Your task to perform on an android device: change notification settings in the gmail app Image 0: 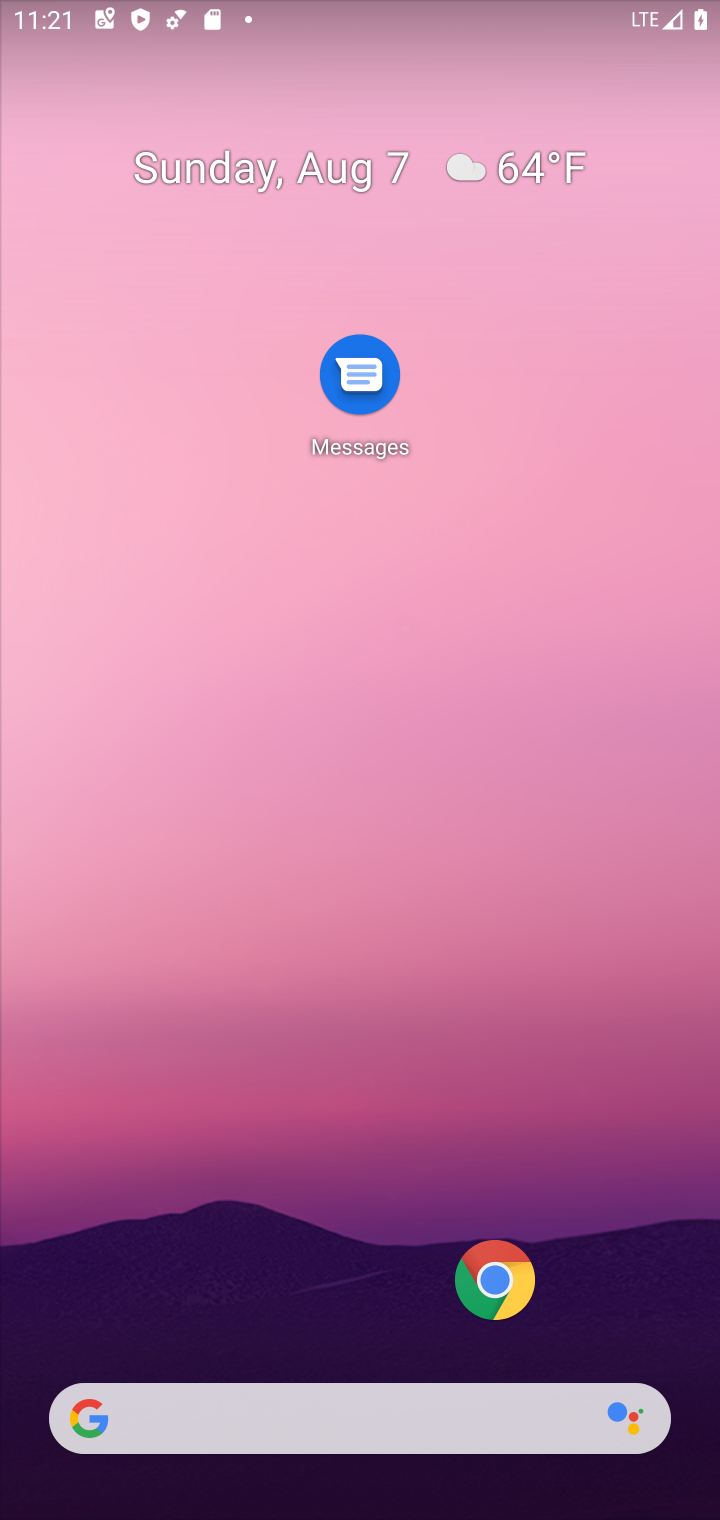
Step 0: drag from (320, 1325) to (505, 318)
Your task to perform on an android device: change notification settings in the gmail app Image 1: 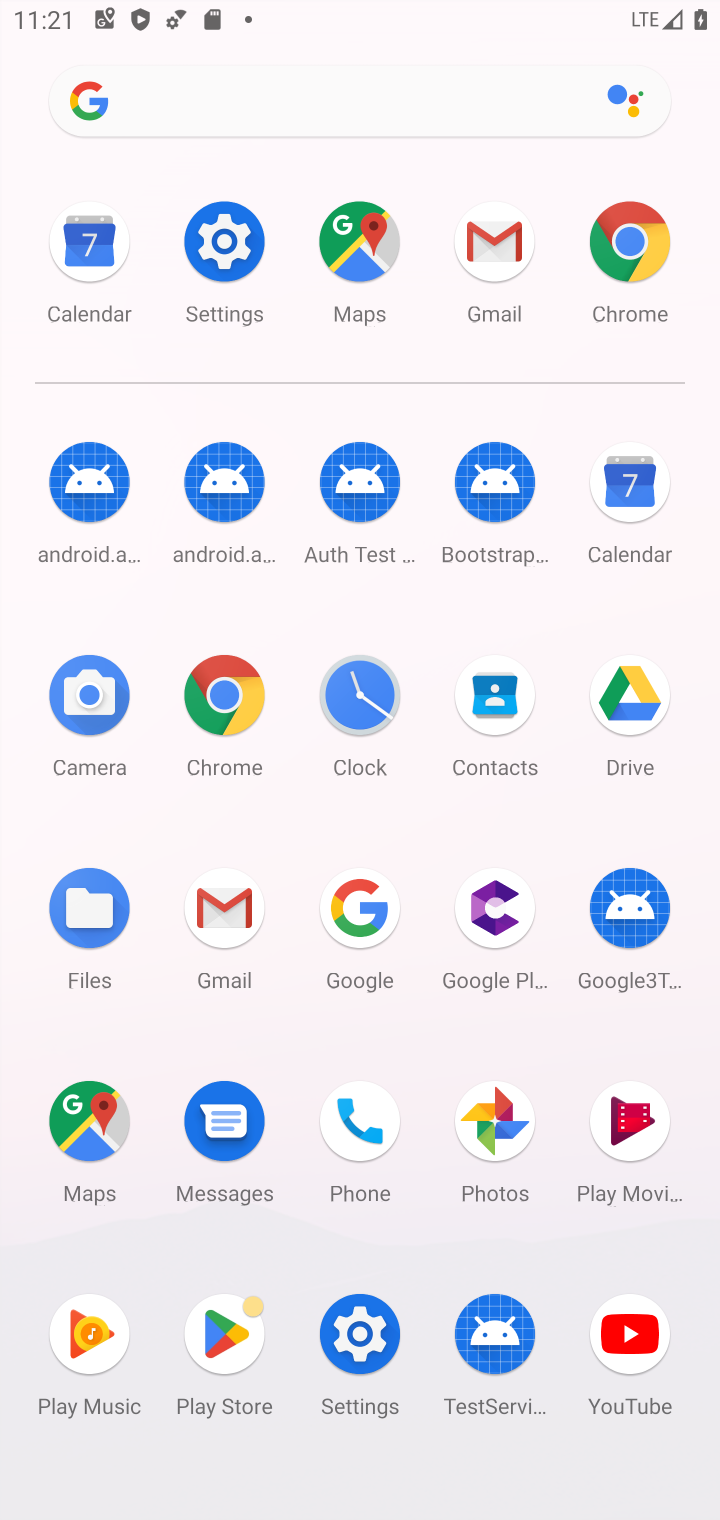
Step 1: click (506, 249)
Your task to perform on an android device: change notification settings in the gmail app Image 2: 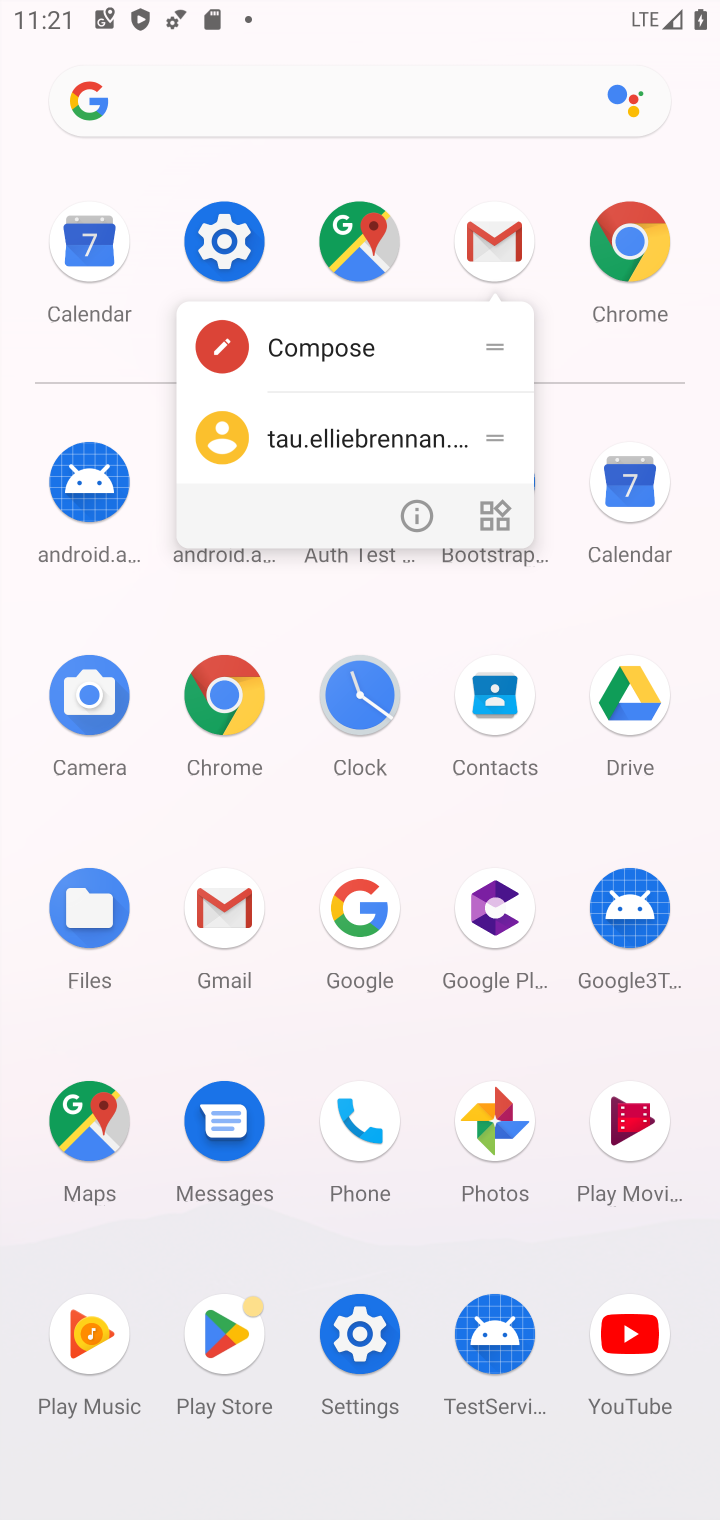
Step 2: click (420, 502)
Your task to perform on an android device: change notification settings in the gmail app Image 3: 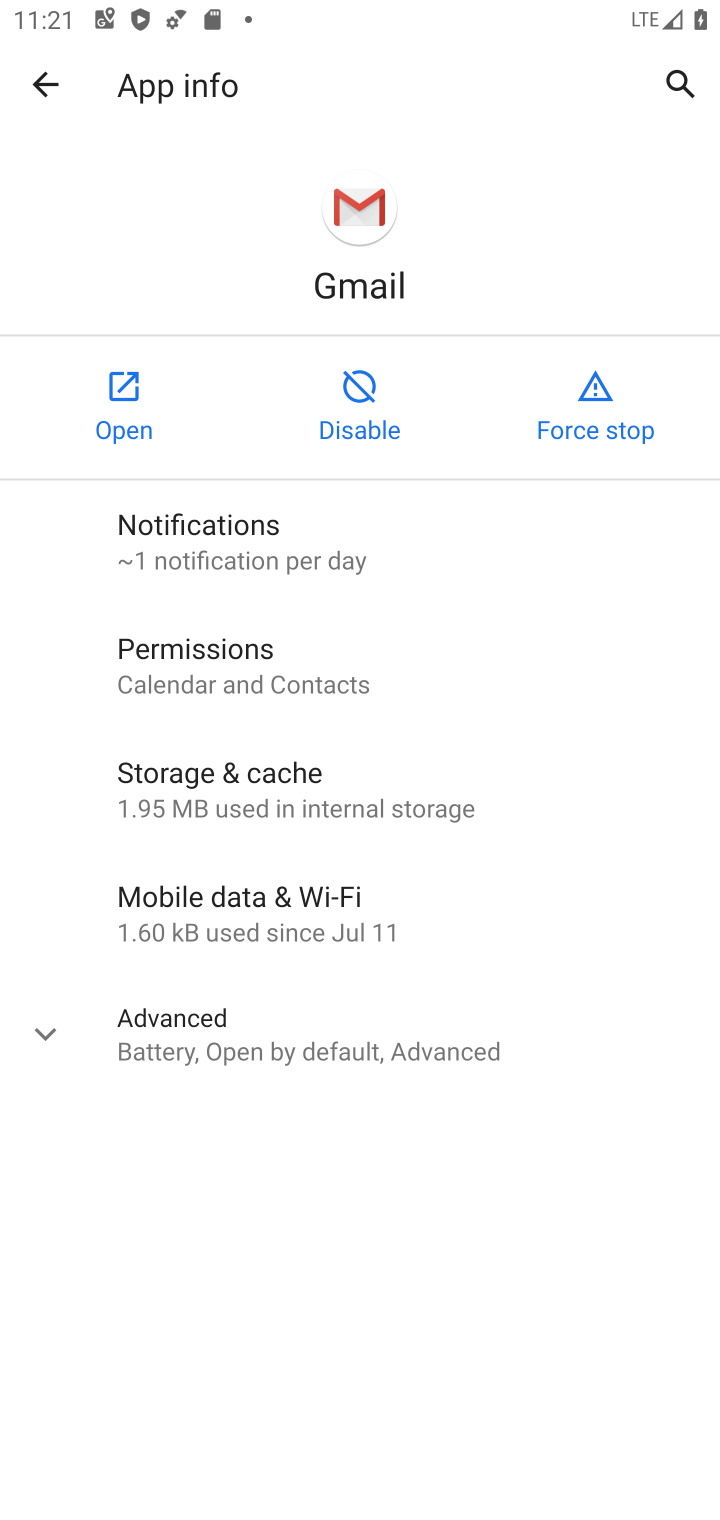
Step 3: click (309, 541)
Your task to perform on an android device: change notification settings in the gmail app Image 4: 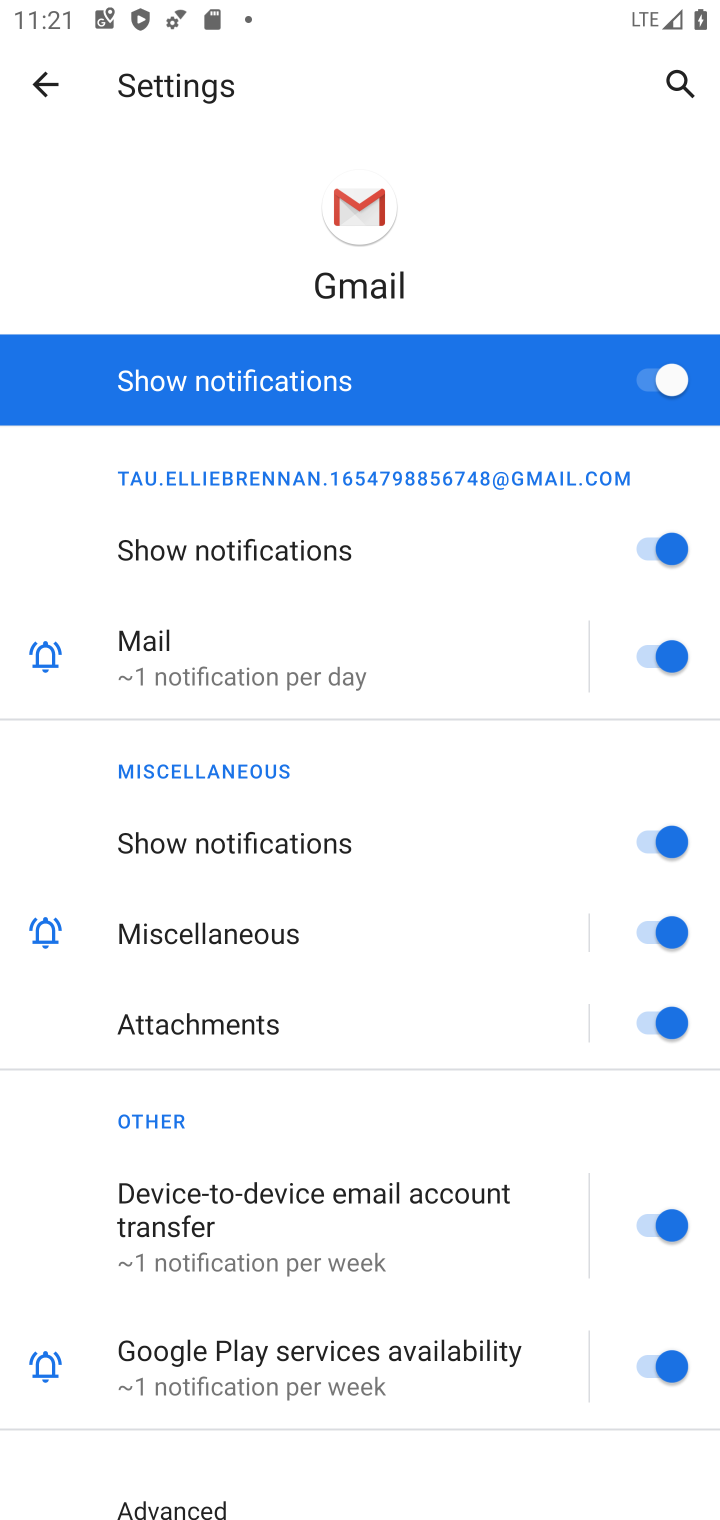
Step 4: click (686, 550)
Your task to perform on an android device: change notification settings in the gmail app Image 5: 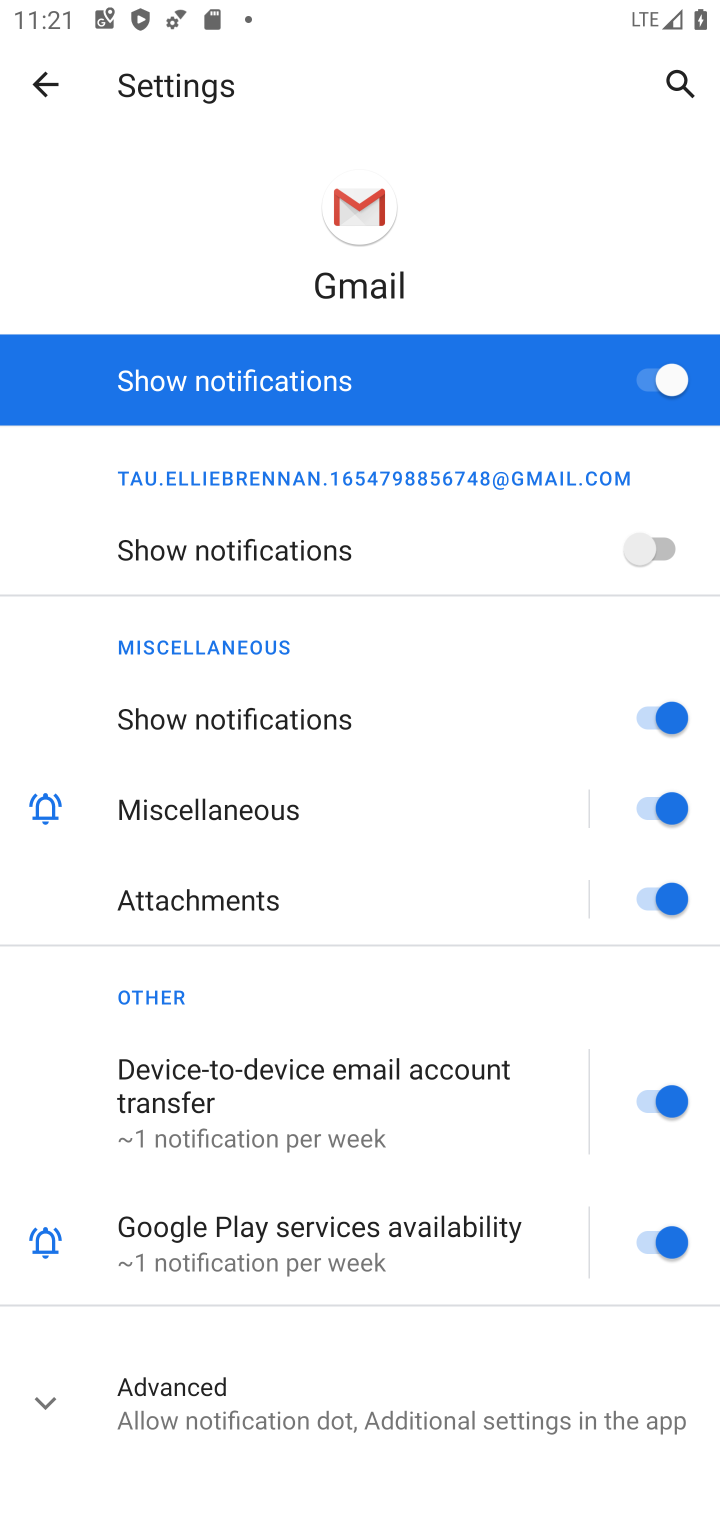
Step 5: task complete